Your task to perform on an android device: Open ESPN.com Image 0: 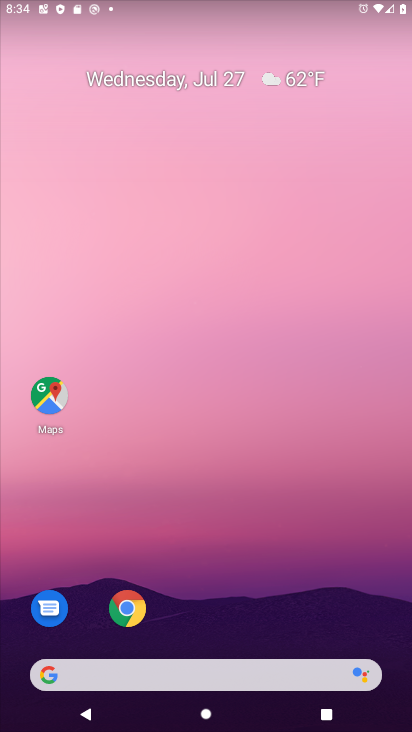
Step 0: click (203, 667)
Your task to perform on an android device: Open ESPN.com Image 1: 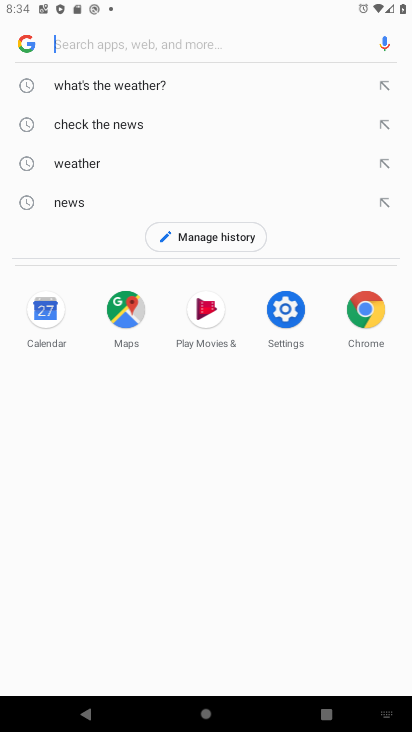
Step 1: type "ESPN.com"
Your task to perform on an android device: Open ESPN.com Image 2: 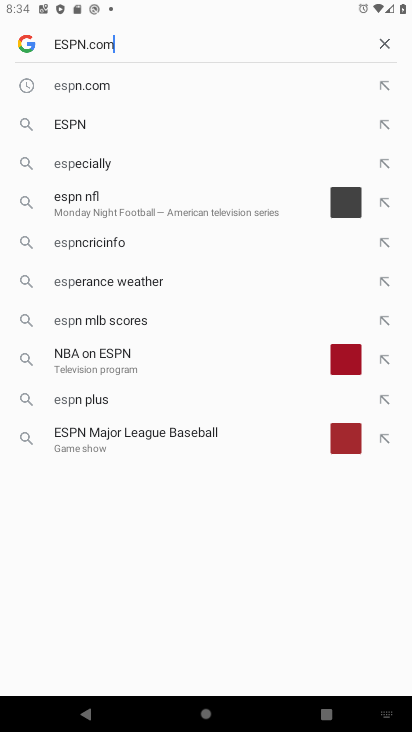
Step 2: press enter
Your task to perform on an android device: Open ESPN.com Image 3: 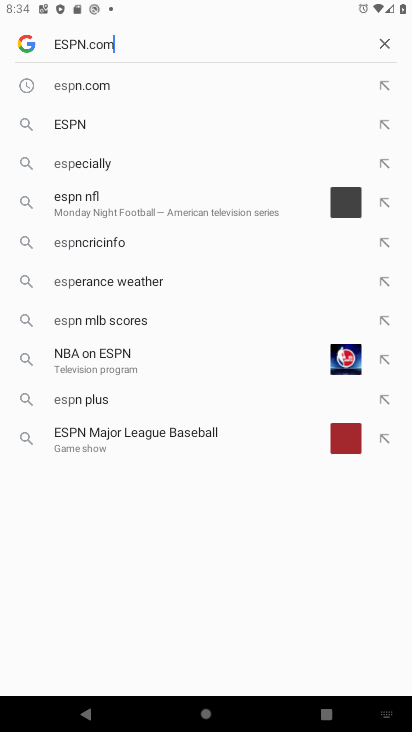
Step 3: type ""
Your task to perform on an android device: Open ESPN.com Image 4: 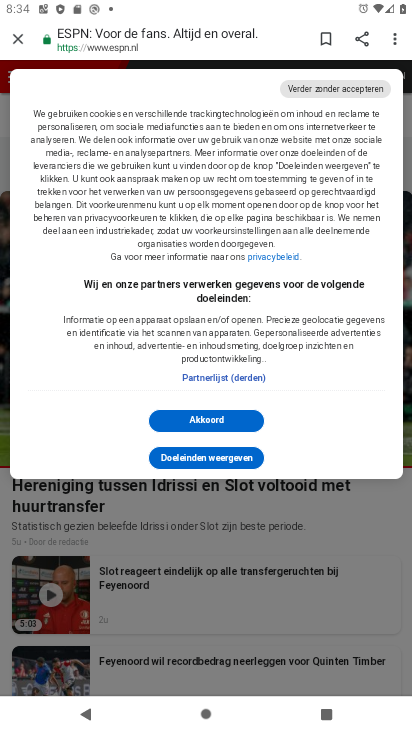
Step 4: task complete